Your task to perform on an android device: Open the calendar app, open the side menu, and click the "Day" option Image 0: 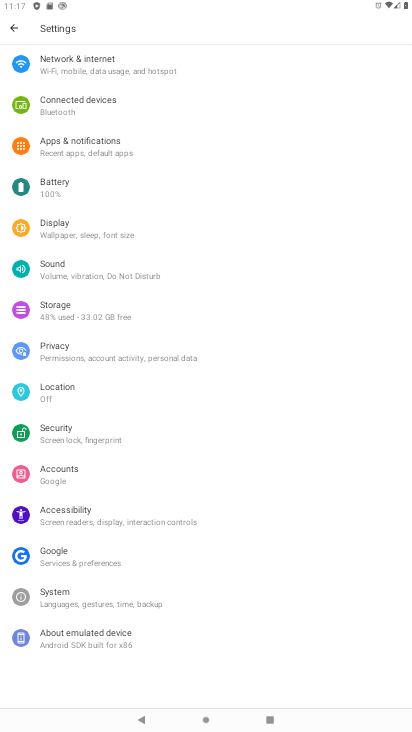
Step 0: press home button
Your task to perform on an android device: Open the calendar app, open the side menu, and click the "Day" option Image 1: 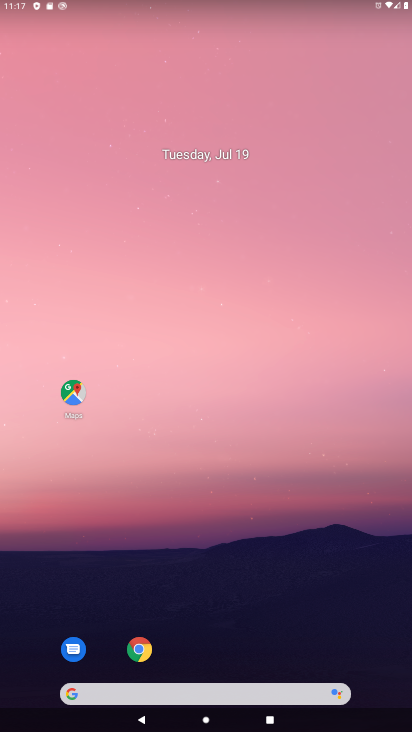
Step 1: drag from (222, 705) to (208, 104)
Your task to perform on an android device: Open the calendar app, open the side menu, and click the "Day" option Image 2: 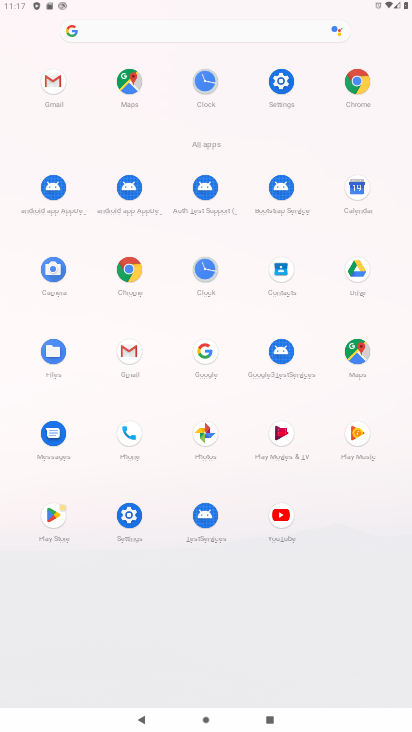
Step 2: click (363, 186)
Your task to perform on an android device: Open the calendar app, open the side menu, and click the "Day" option Image 3: 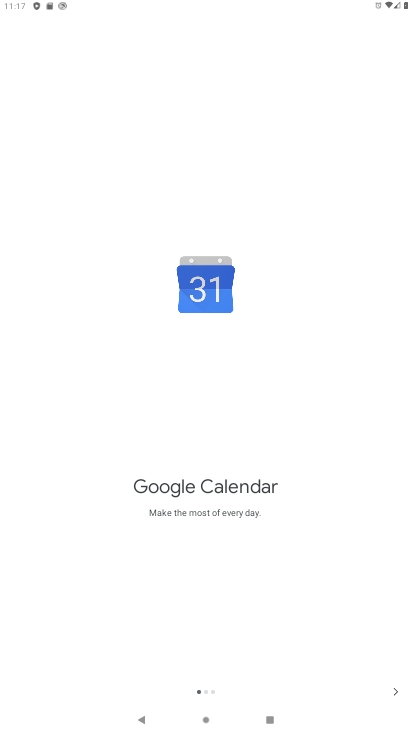
Step 3: click (395, 691)
Your task to perform on an android device: Open the calendar app, open the side menu, and click the "Day" option Image 4: 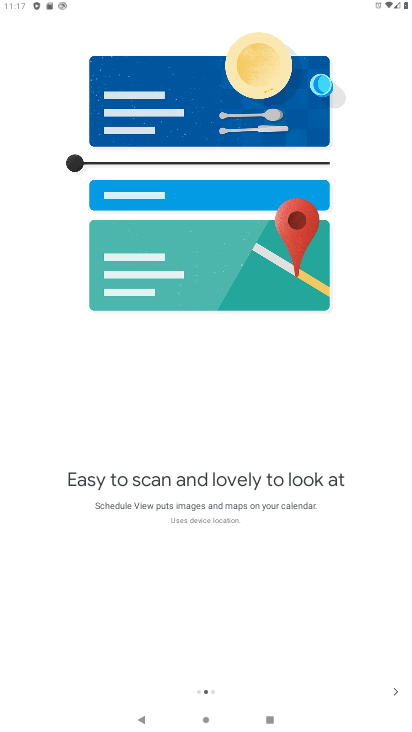
Step 4: click (395, 691)
Your task to perform on an android device: Open the calendar app, open the side menu, and click the "Day" option Image 5: 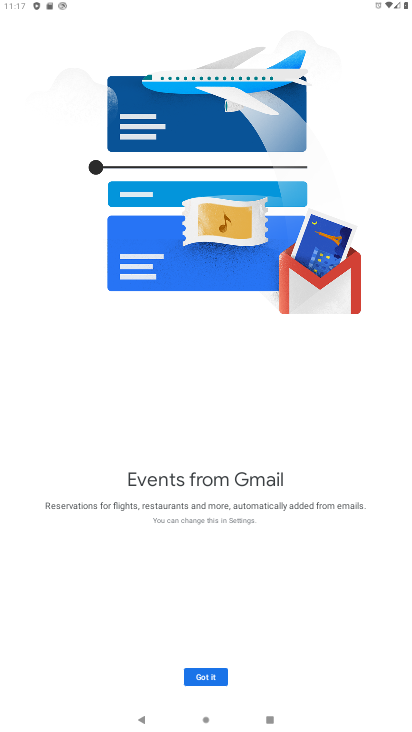
Step 5: click (219, 674)
Your task to perform on an android device: Open the calendar app, open the side menu, and click the "Day" option Image 6: 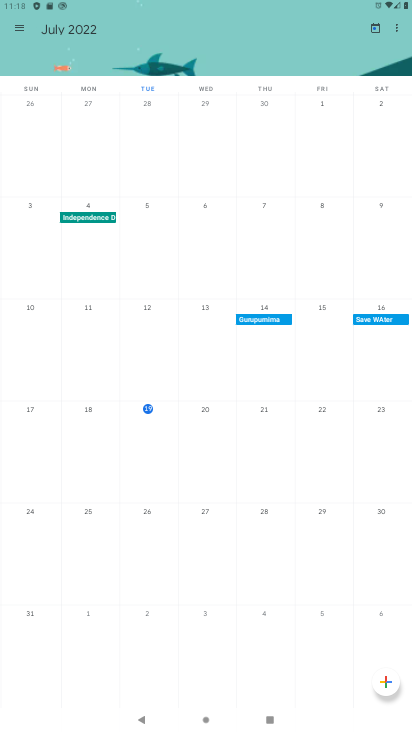
Step 6: drag from (312, 447) to (53, 489)
Your task to perform on an android device: Open the calendar app, open the side menu, and click the "Day" option Image 7: 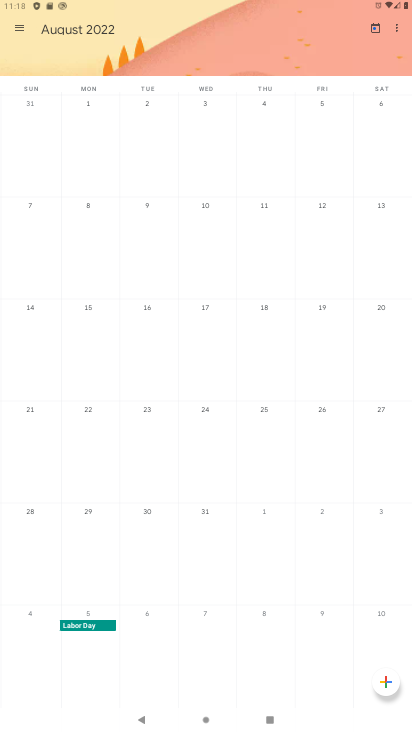
Step 7: drag from (8, 314) to (258, 378)
Your task to perform on an android device: Open the calendar app, open the side menu, and click the "Day" option Image 8: 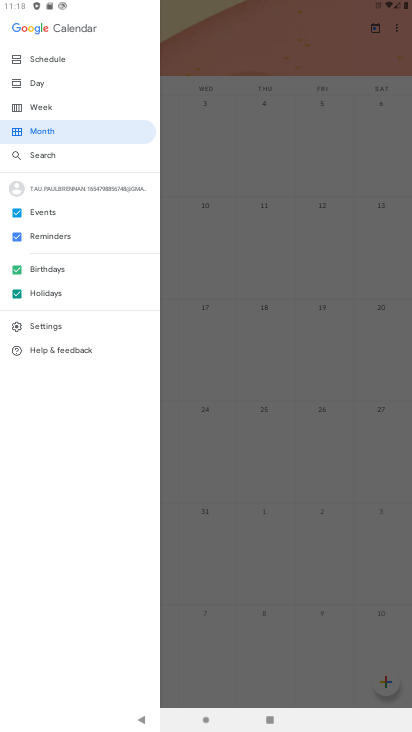
Step 8: click (223, 279)
Your task to perform on an android device: Open the calendar app, open the side menu, and click the "Day" option Image 9: 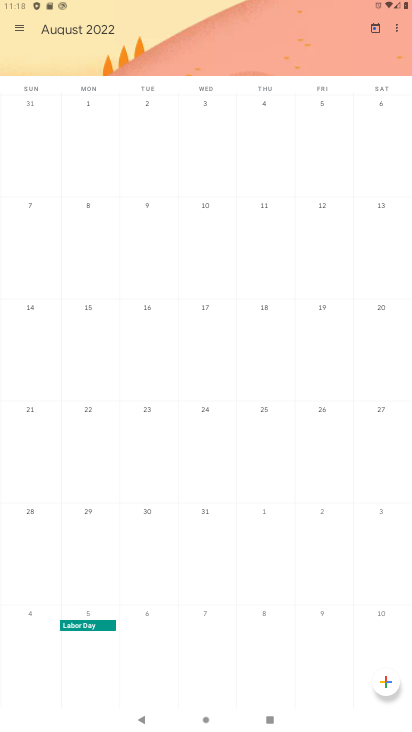
Step 9: drag from (30, 403) to (407, 376)
Your task to perform on an android device: Open the calendar app, open the side menu, and click the "Day" option Image 10: 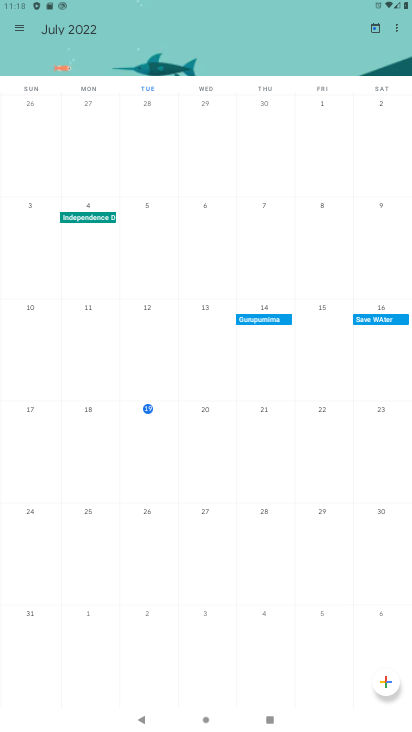
Step 10: click (11, 37)
Your task to perform on an android device: Open the calendar app, open the side menu, and click the "Day" option Image 11: 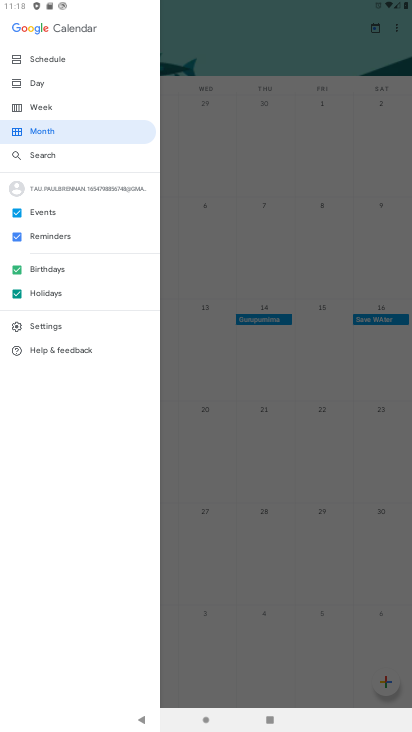
Step 11: click (46, 109)
Your task to perform on an android device: Open the calendar app, open the side menu, and click the "Day" option Image 12: 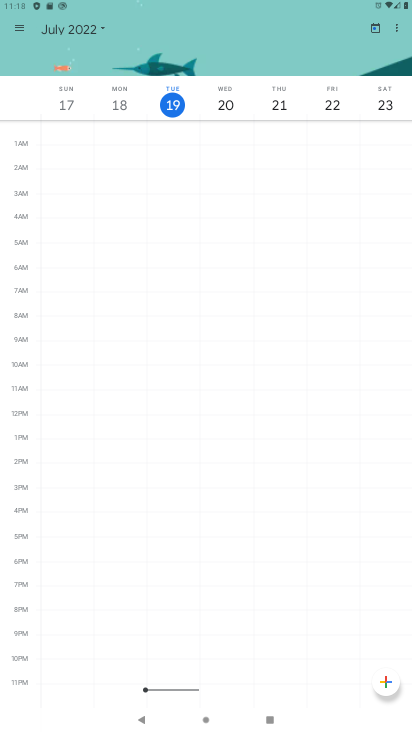
Step 12: task complete